Your task to perform on an android device: Play the last video I watched on Youtube Image 0: 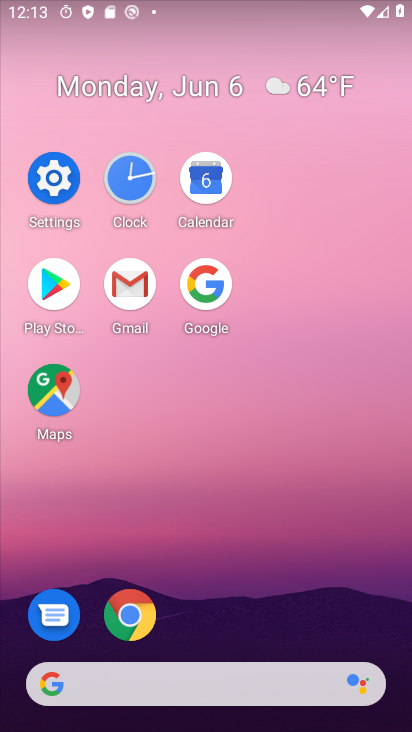
Step 0: drag from (197, 599) to (345, 11)
Your task to perform on an android device: Play the last video I watched on Youtube Image 1: 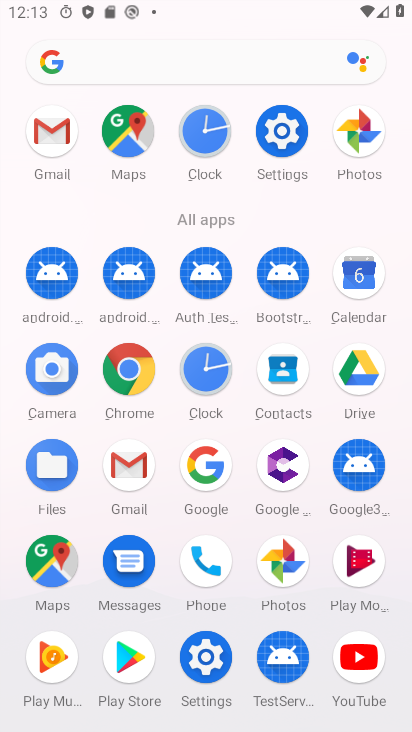
Step 1: drag from (353, 661) to (135, 354)
Your task to perform on an android device: Play the last video I watched on Youtube Image 2: 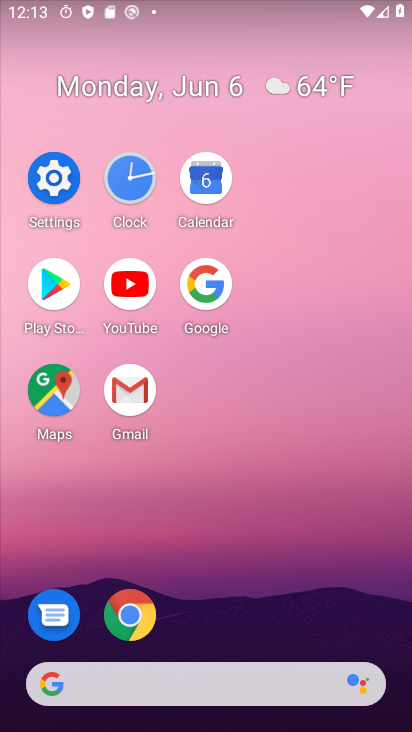
Step 2: click (134, 283)
Your task to perform on an android device: Play the last video I watched on Youtube Image 3: 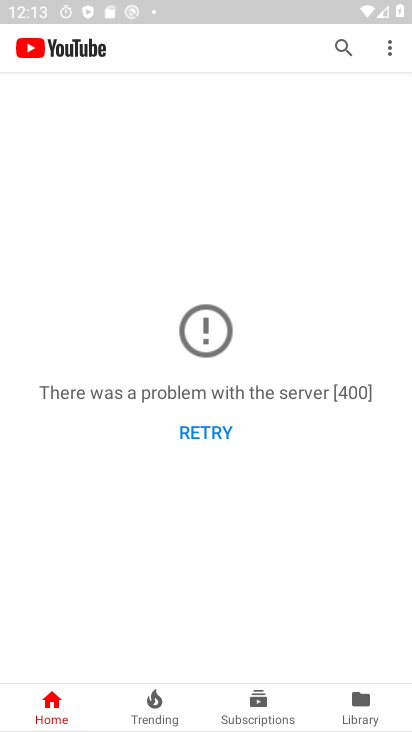
Step 3: task complete